Your task to perform on an android device: change text size in settings app Image 0: 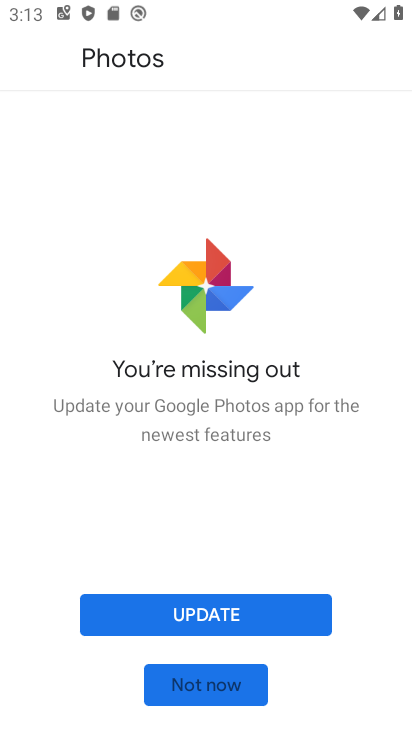
Step 0: press back button
Your task to perform on an android device: change text size in settings app Image 1: 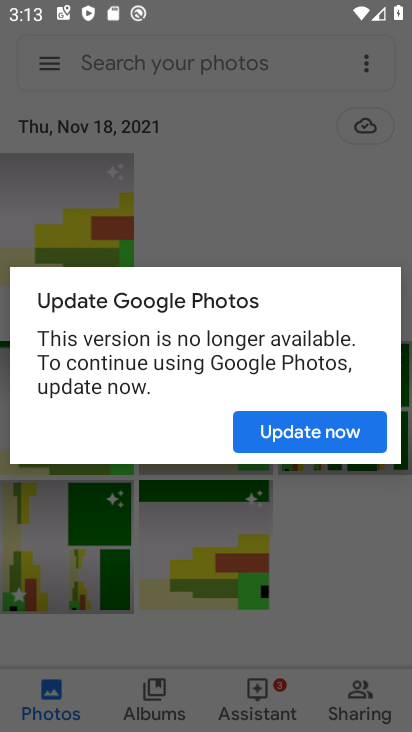
Step 1: press home button
Your task to perform on an android device: change text size in settings app Image 2: 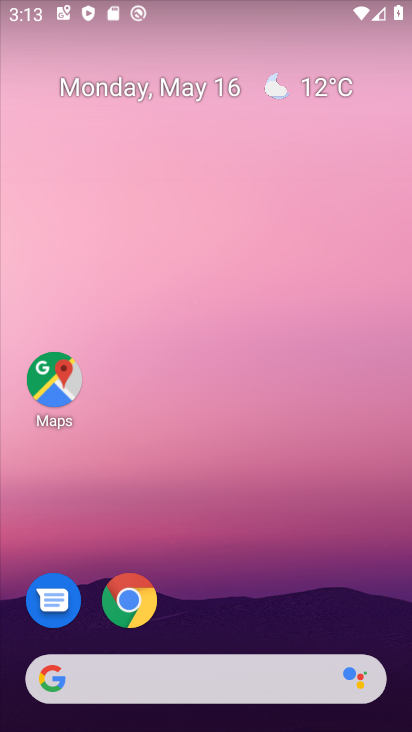
Step 2: drag from (218, 637) to (185, 0)
Your task to perform on an android device: change text size in settings app Image 3: 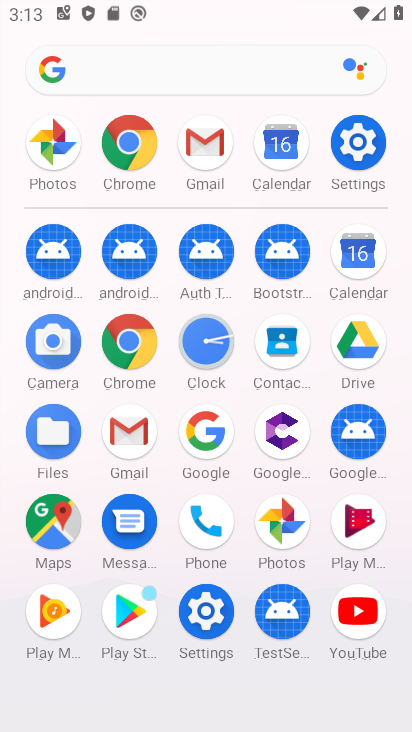
Step 3: click (370, 160)
Your task to perform on an android device: change text size in settings app Image 4: 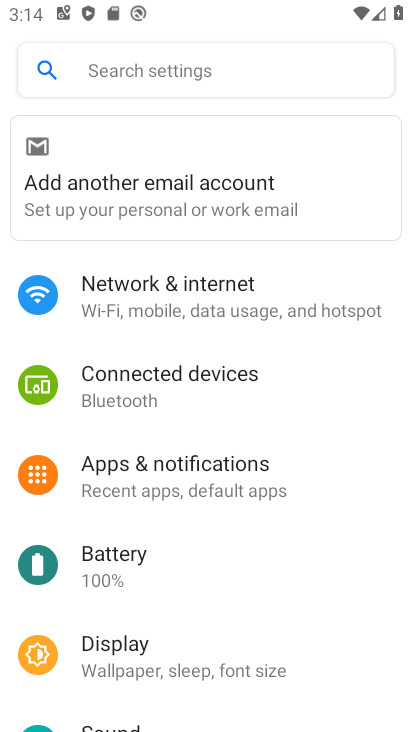
Step 4: drag from (194, 566) to (153, 302)
Your task to perform on an android device: change text size in settings app Image 5: 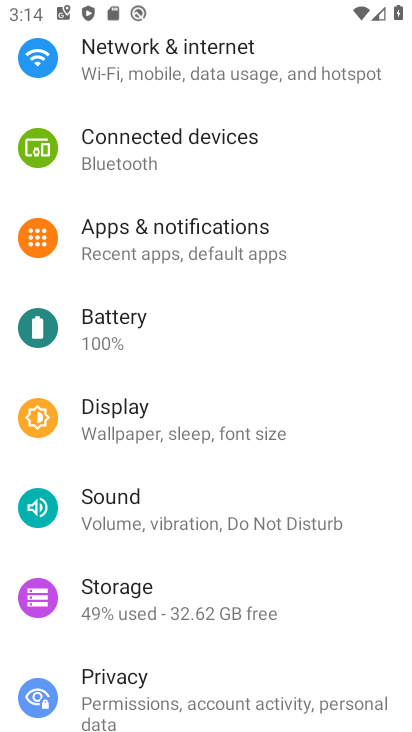
Step 5: click (44, 408)
Your task to perform on an android device: change text size in settings app Image 6: 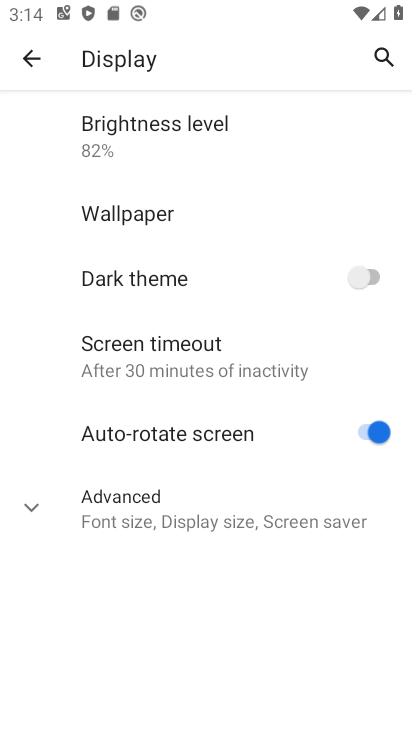
Step 6: click (188, 517)
Your task to perform on an android device: change text size in settings app Image 7: 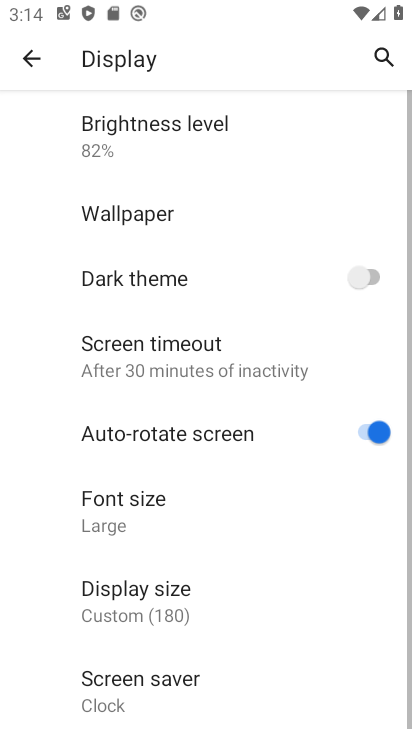
Step 7: click (162, 516)
Your task to perform on an android device: change text size in settings app Image 8: 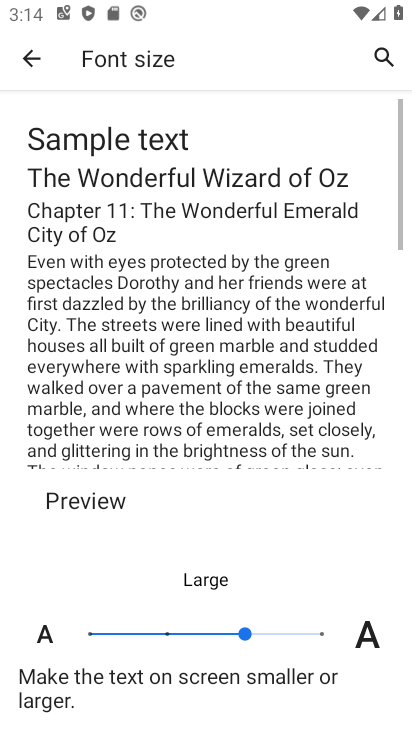
Step 8: click (161, 634)
Your task to perform on an android device: change text size in settings app Image 9: 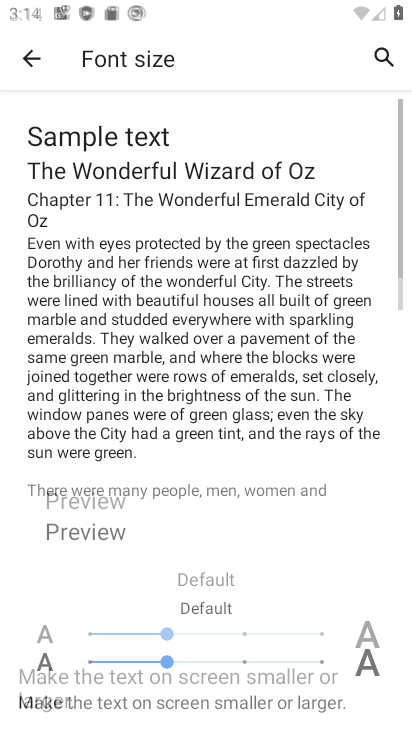
Step 9: task complete